Your task to perform on an android device: Open Google Image 0: 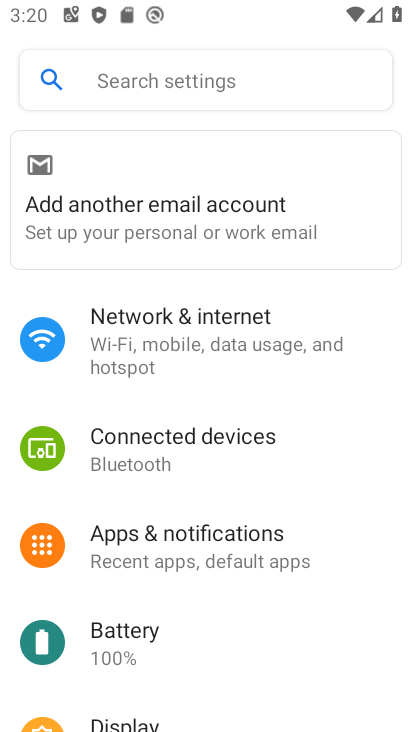
Step 0: press home button
Your task to perform on an android device: Open Google Image 1: 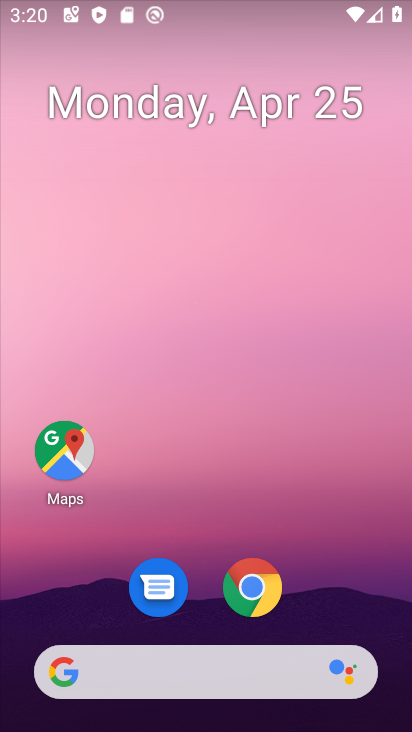
Step 1: drag from (191, 522) to (213, 91)
Your task to perform on an android device: Open Google Image 2: 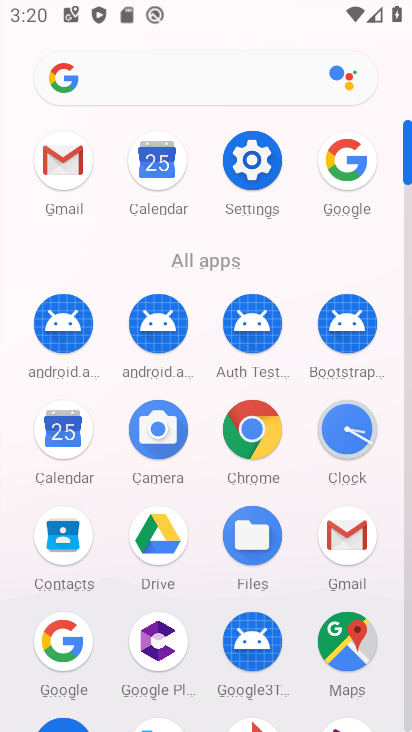
Step 2: click (356, 164)
Your task to perform on an android device: Open Google Image 3: 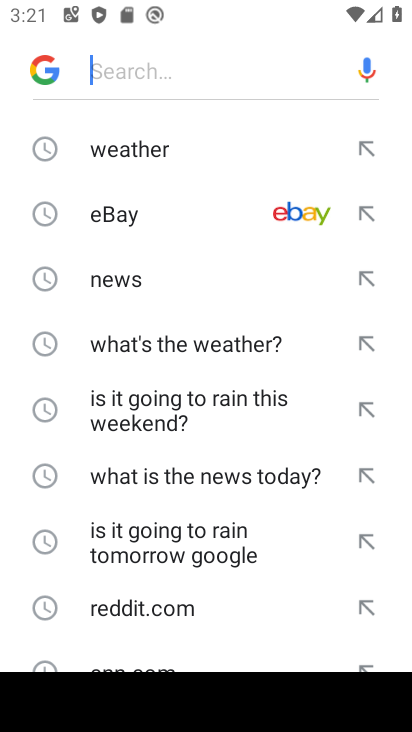
Step 3: task complete